Your task to perform on an android device: Search for the best rated book on Goodreads. Image 0: 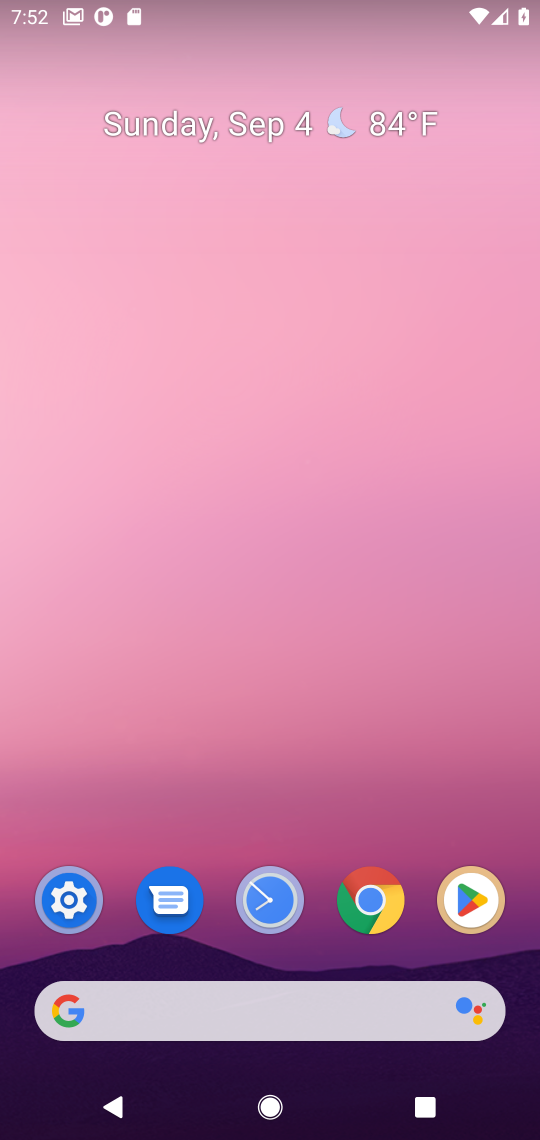
Step 0: drag from (365, 743) to (514, 514)
Your task to perform on an android device: Search for the best rated book on Goodreads. Image 1: 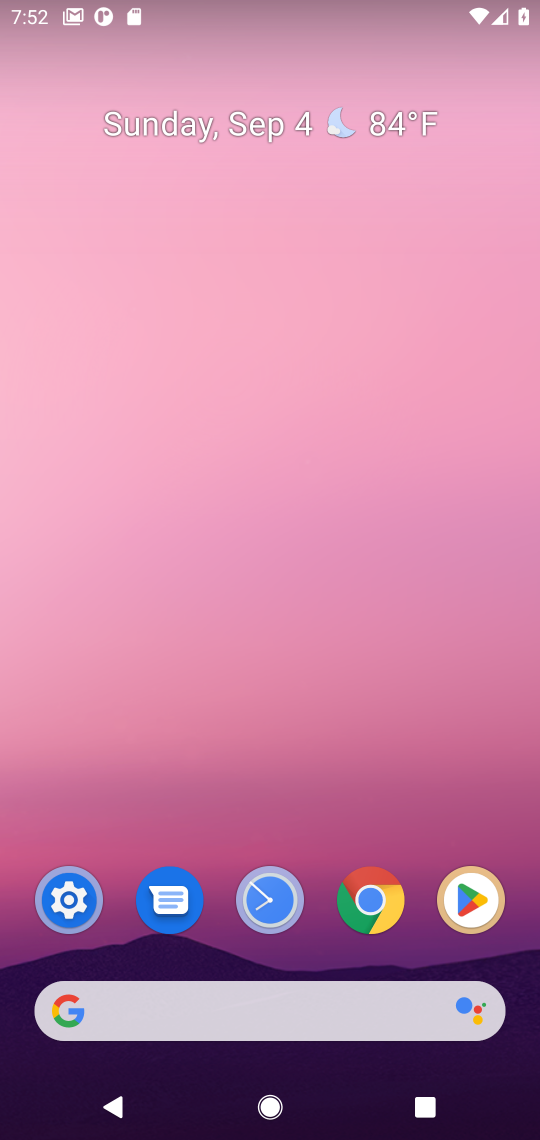
Step 1: drag from (391, 807) to (401, 0)
Your task to perform on an android device: Search for the best rated book on Goodreads. Image 2: 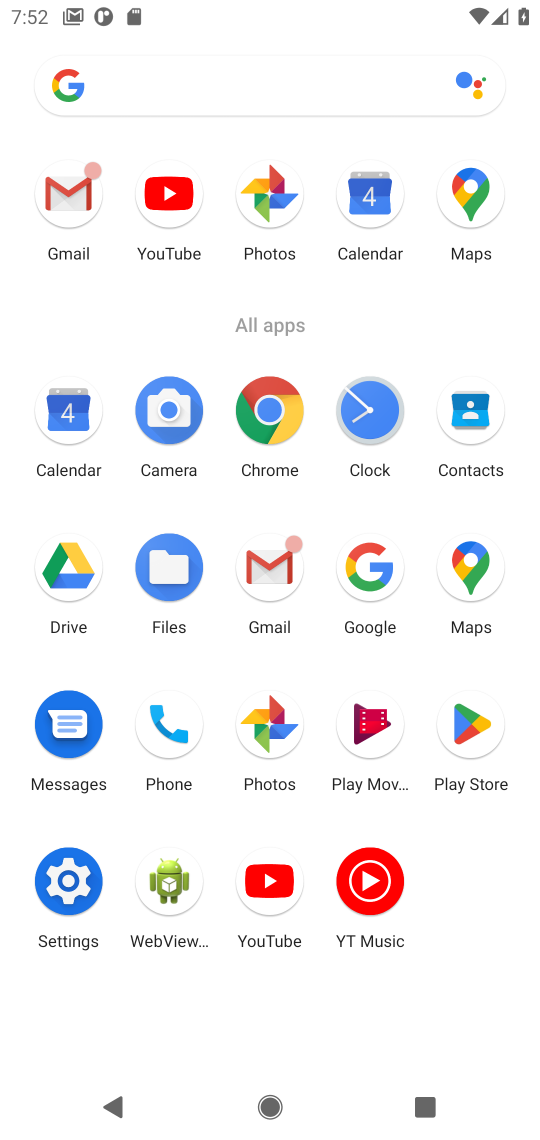
Step 2: click (264, 412)
Your task to perform on an android device: Search for the best rated book on Goodreads. Image 3: 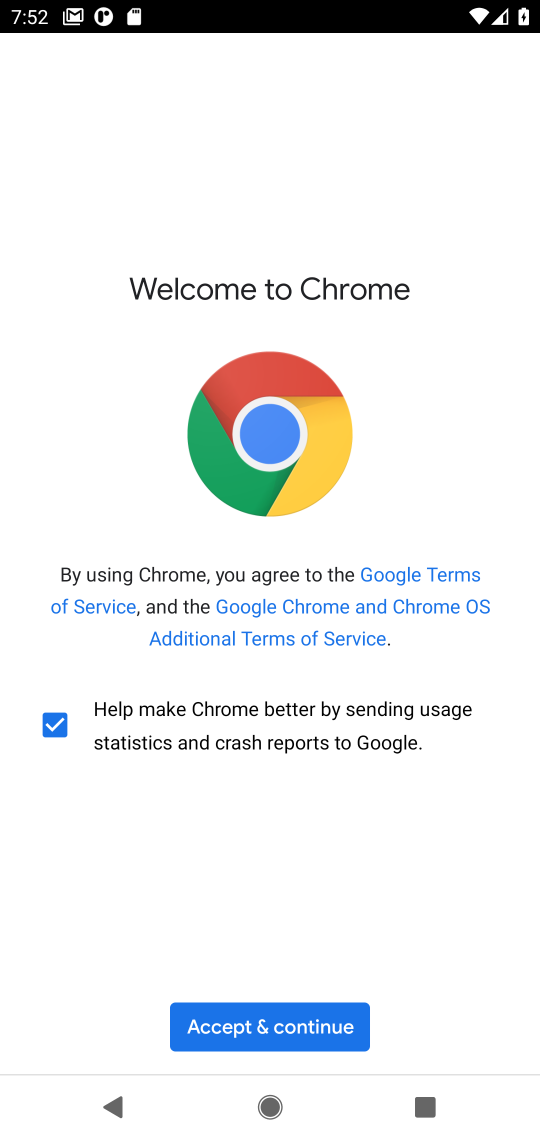
Step 3: click (325, 1027)
Your task to perform on an android device: Search for the best rated book on Goodreads. Image 4: 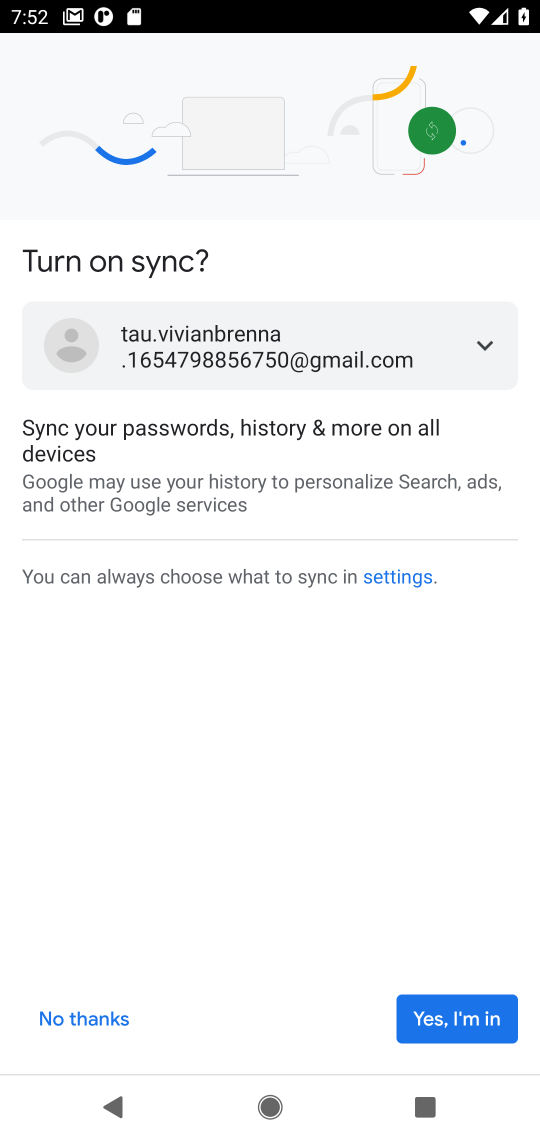
Step 4: click (430, 1011)
Your task to perform on an android device: Search for the best rated book on Goodreads. Image 5: 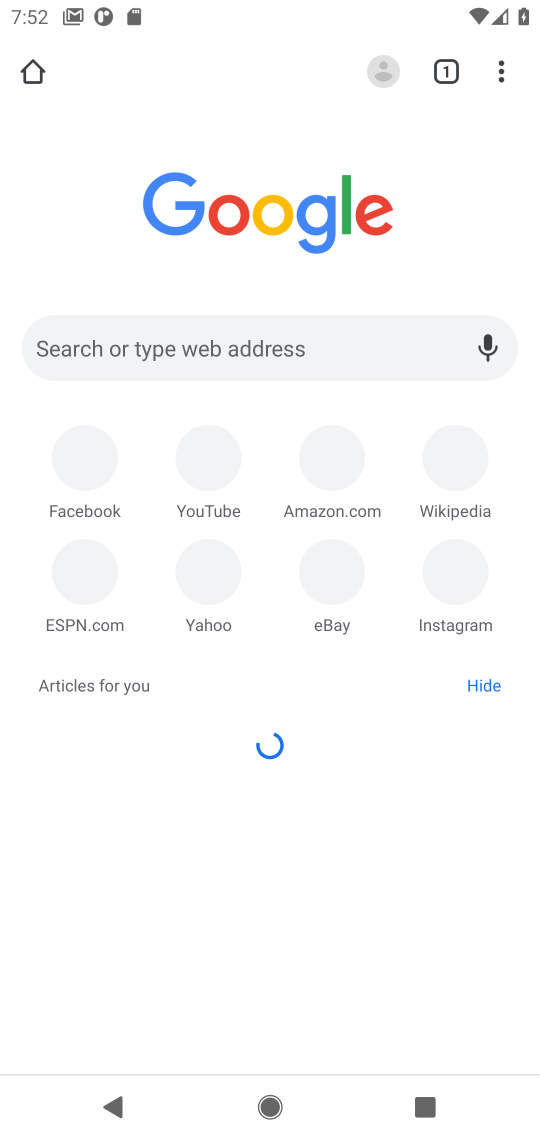
Step 5: click (313, 341)
Your task to perform on an android device: Search for the best rated book on Goodreads. Image 6: 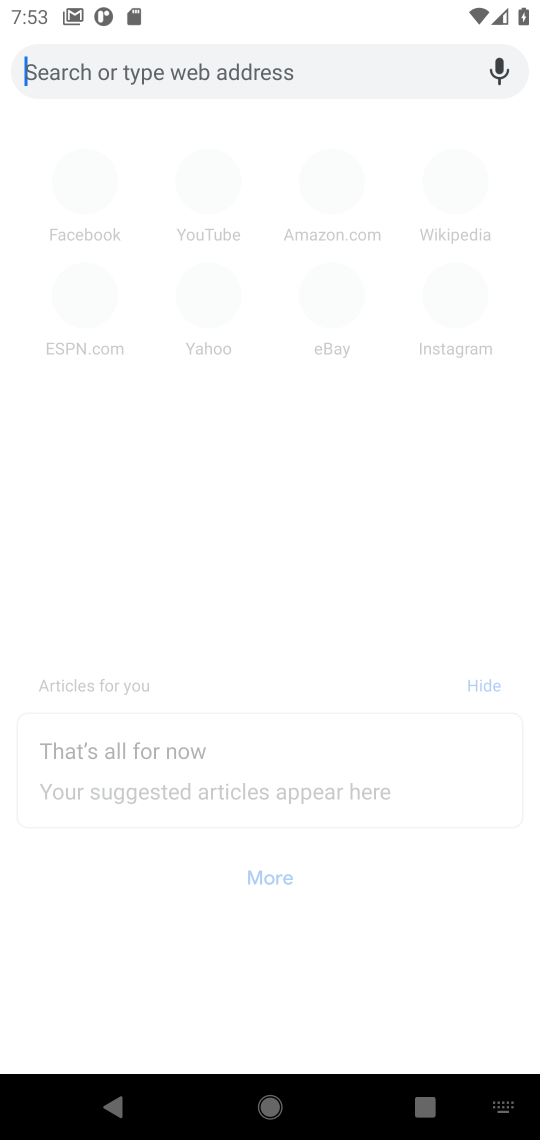
Step 6: type "best rated book on goodreads"
Your task to perform on an android device: Search for the best rated book on Goodreads. Image 7: 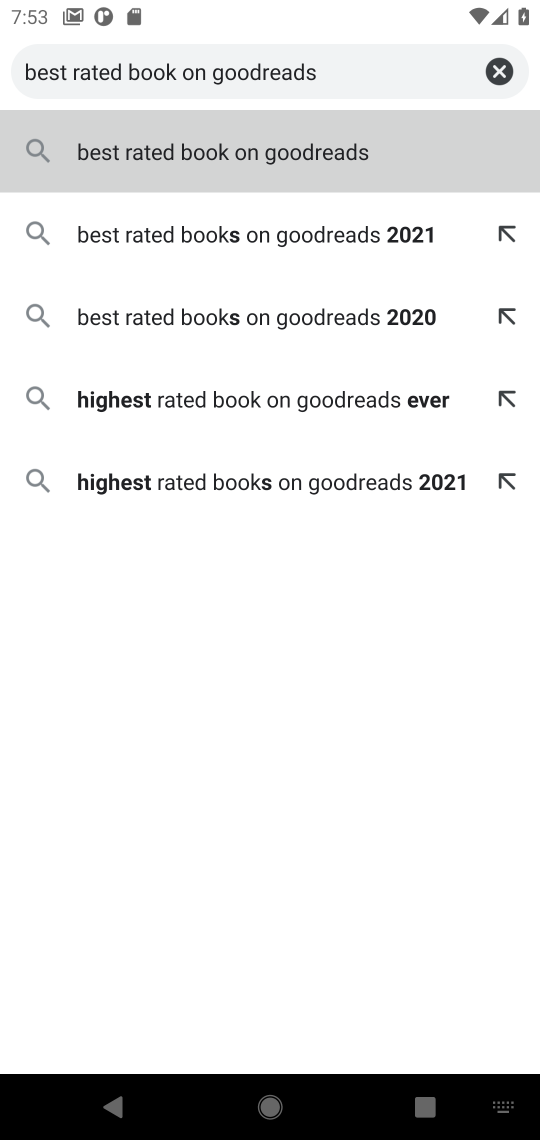
Step 7: press enter
Your task to perform on an android device: Search for the best rated book on Goodreads. Image 8: 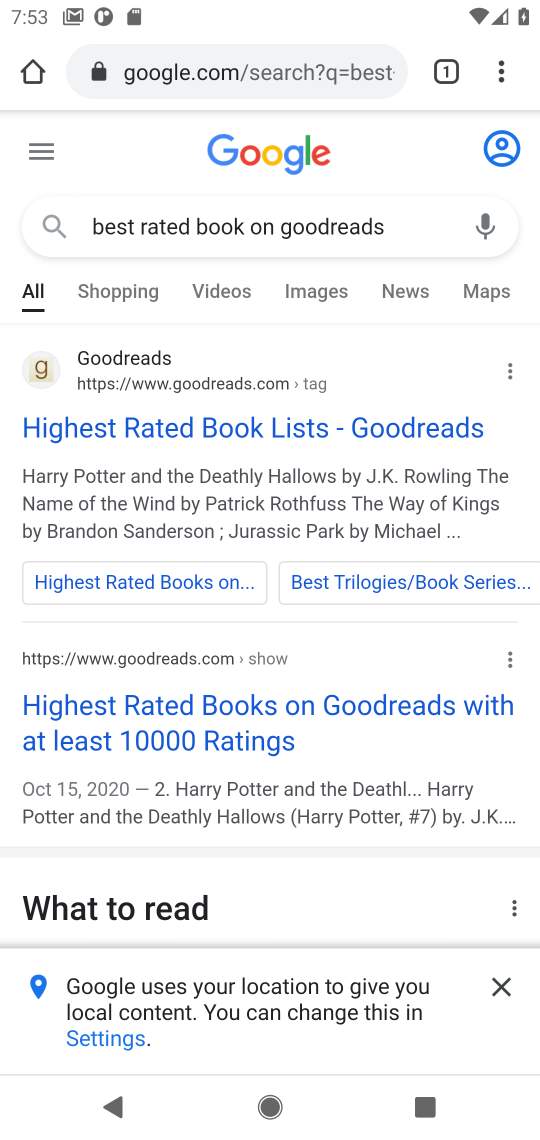
Step 8: click (216, 718)
Your task to perform on an android device: Search for the best rated book on Goodreads. Image 9: 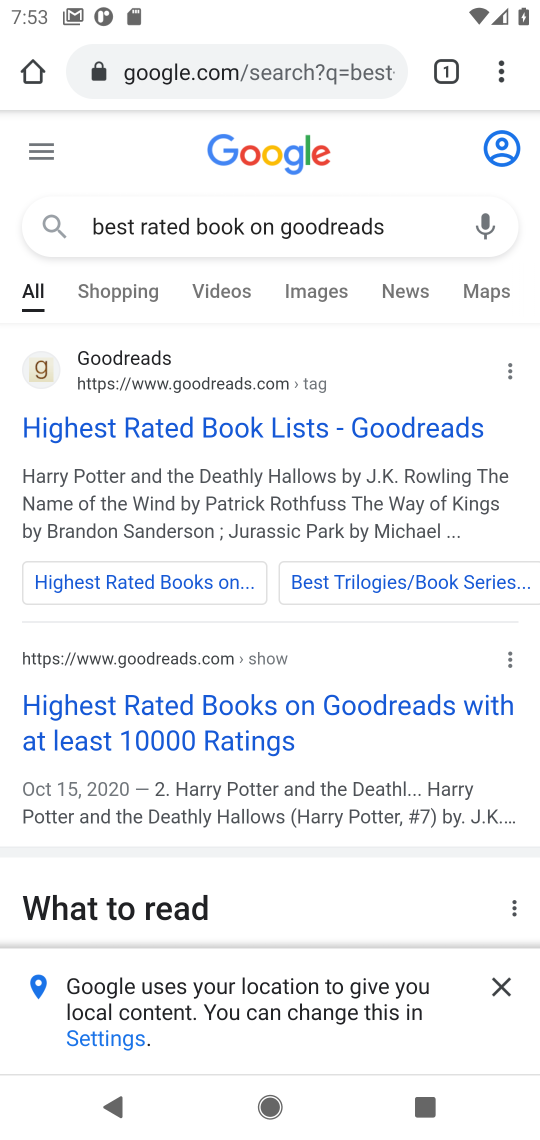
Step 9: click (209, 711)
Your task to perform on an android device: Search for the best rated book on Goodreads. Image 10: 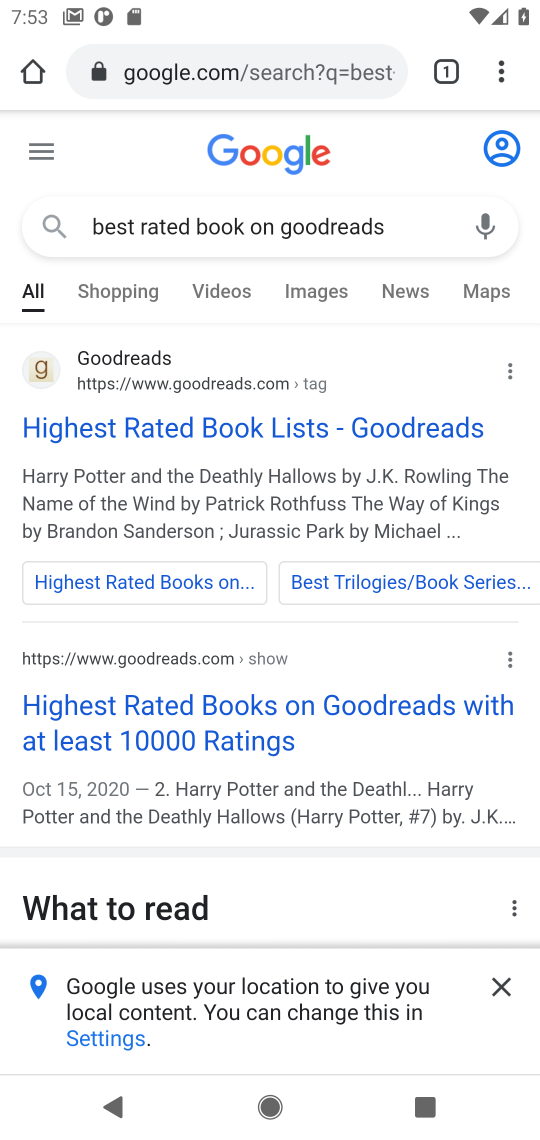
Step 10: click (174, 418)
Your task to perform on an android device: Search for the best rated book on Goodreads. Image 11: 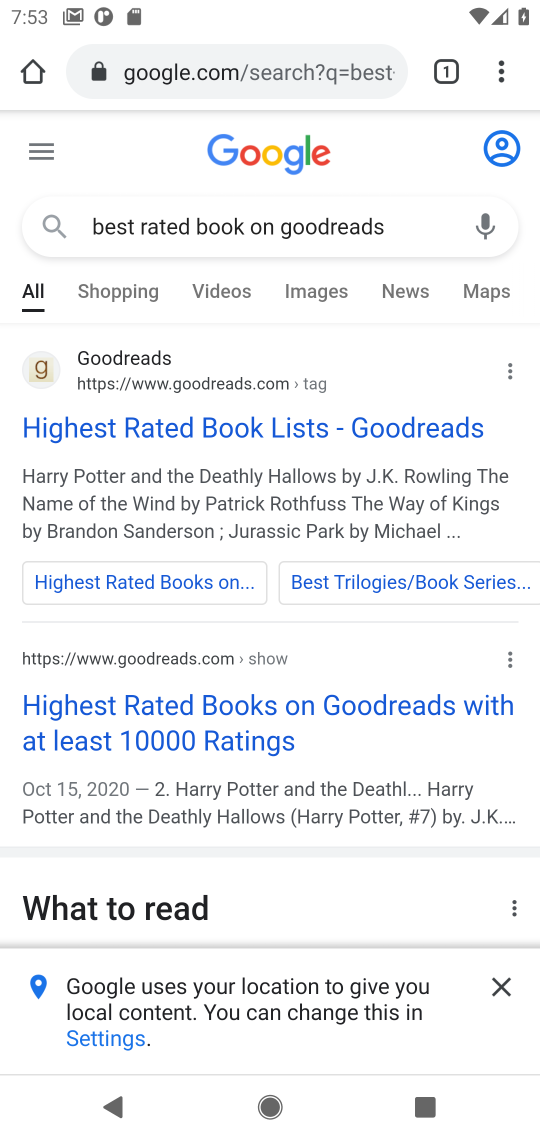
Step 11: click (198, 421)
Your task to perform on an android device: Search for the best rated book on Goodreads. Image 12: 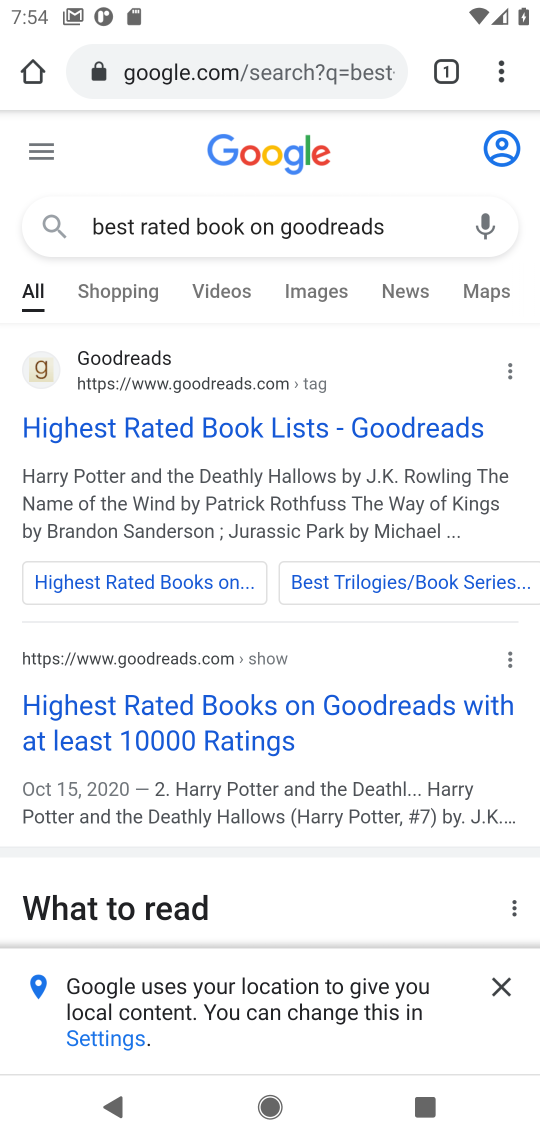
Step 12: click (259, 440)
Your task to perform on an android device: Search for the best rated book on Goodreads. Image 13: 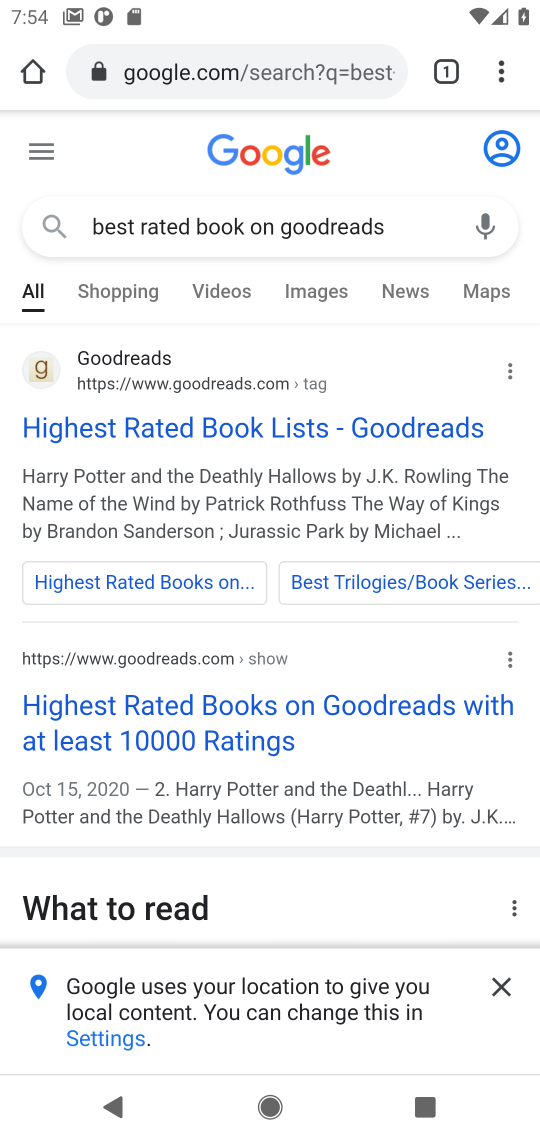
Step 13: click (267, 430)
Your task to perform on an android device: Search for the best rated book on Goodreads. Image 14: 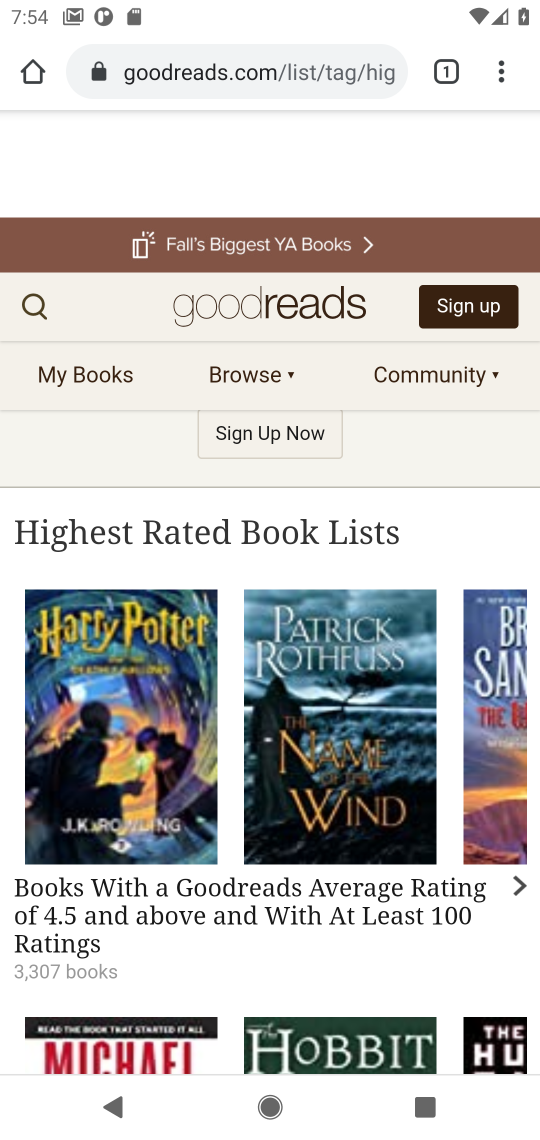
Step 14: task complete